Your task to perform on an android device: open app "eBay: The shopping marketplace" (install if not already installed) and go to login screen Image 0: 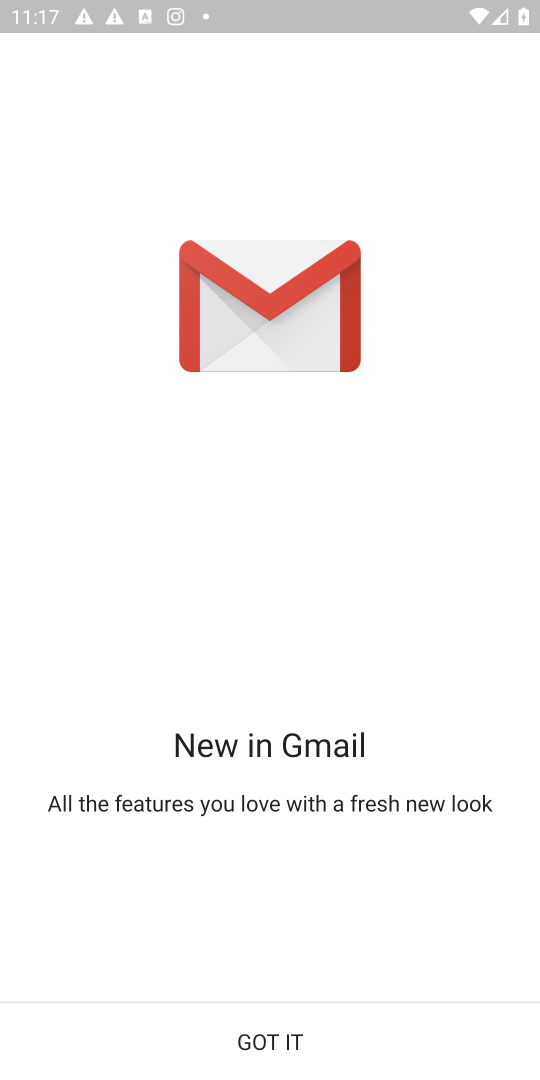
Step 0: press home button
Your task to perform on an android device: open app "eBay: The shopping marketplace" (install if not already installed) and go to login screen Image 1: 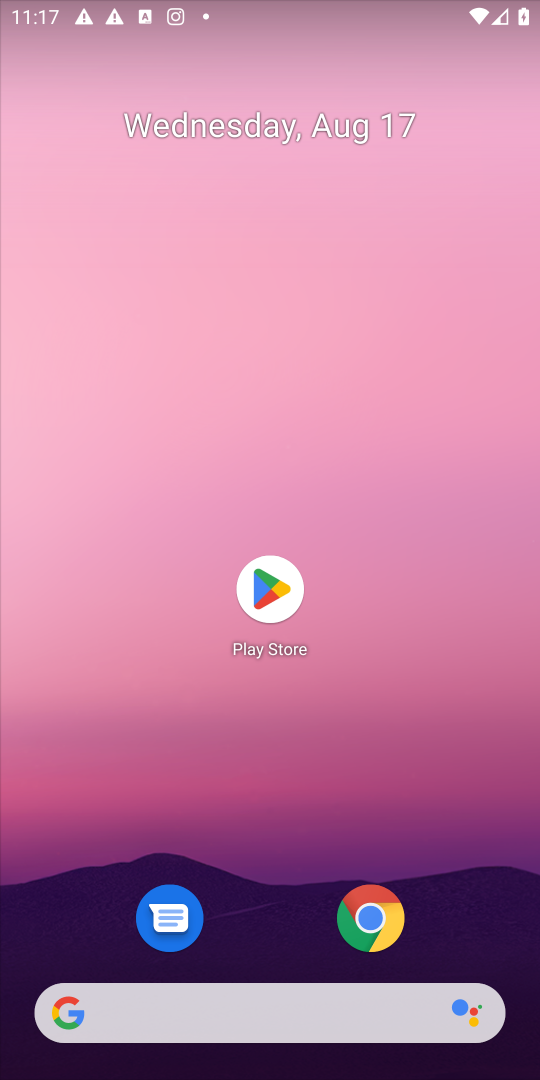
Step 1: click (265, 584)
Your task to perform on an android device: open app "eBay: The shopping marketplace" (install if not already installed) and go to login screen Image 2: 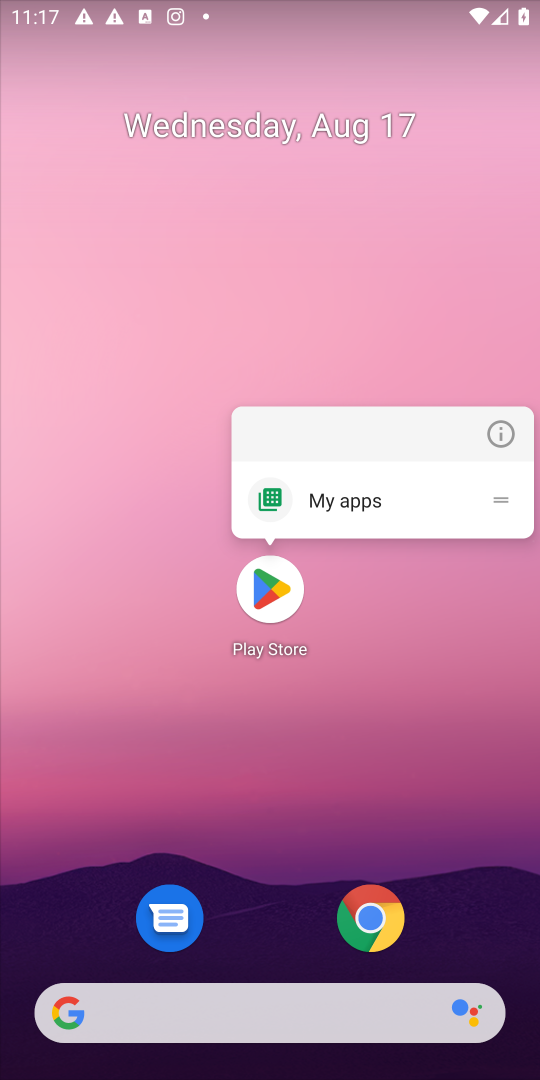
Step 2: click (270, 606)
Your task to perform on an android device: open app "eBay: The shopping marketplace" (install if not already installed) and go to login screen Image 3: 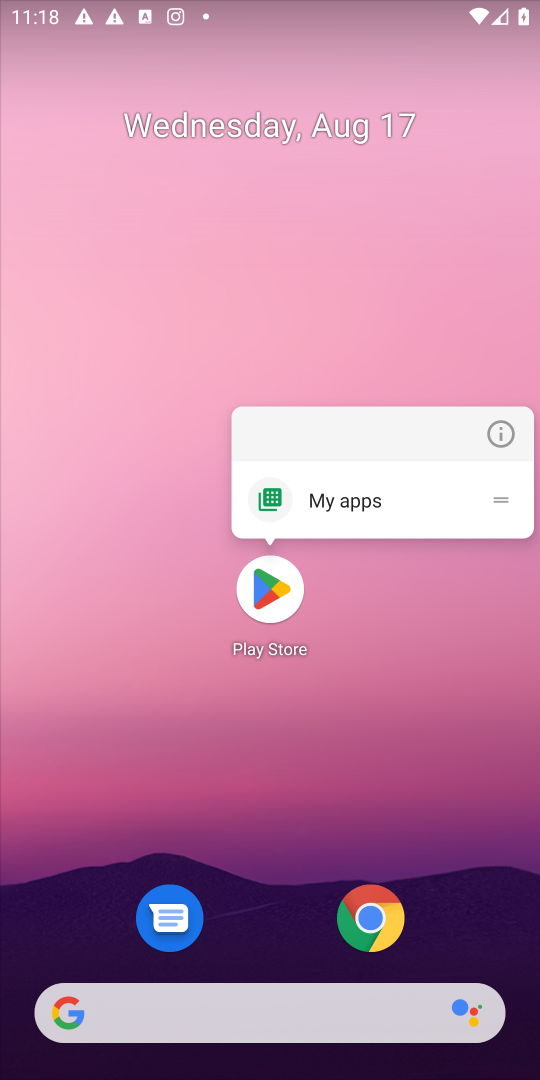
Step 3: click (275, 591)
Your task to perform on an android device: open app "eBay: The shopping marketplace" (install if not already installed) and go to login screen Image 4: 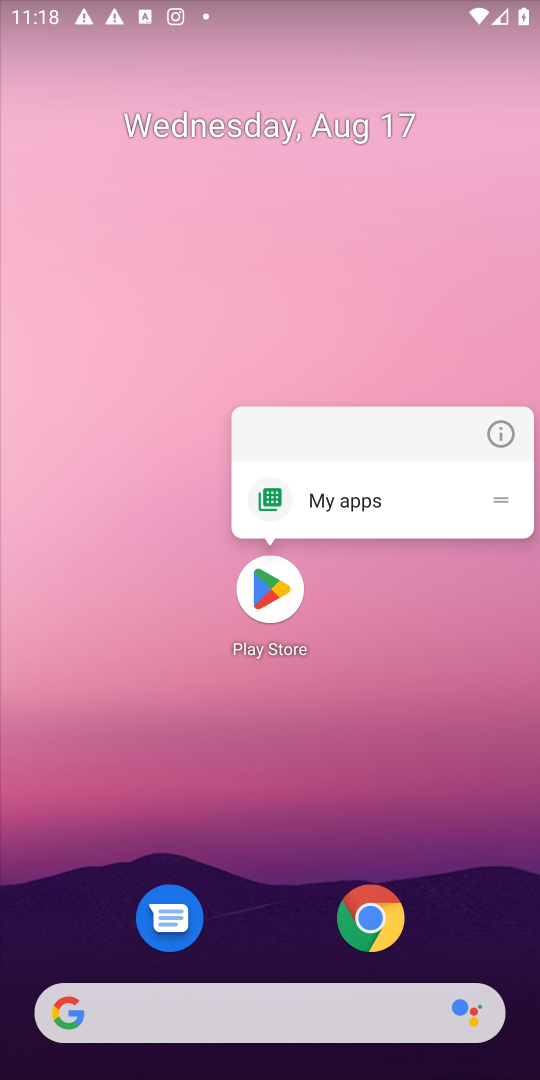
Step 4: click (275, 591)
Your task to perform on an android device: open app "eBay: The shopping marketplace" (install if not already installed) and go to login screen Image 5: 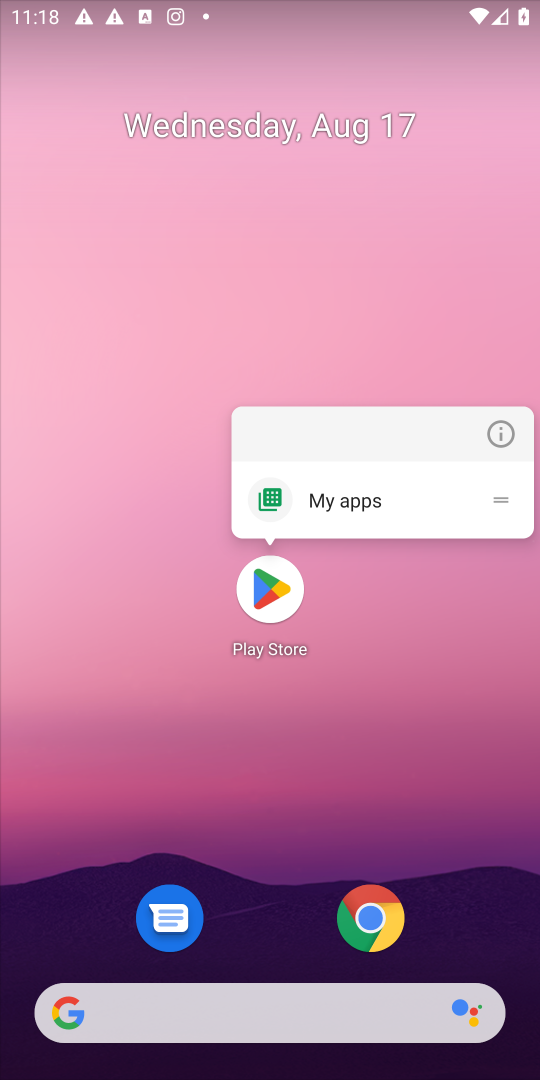
Step 5: click (275, 586)
Your task to perform on an android device: open app "eBay: The shopping marketplace" (install if not already installed) and go to login screen Image 6: 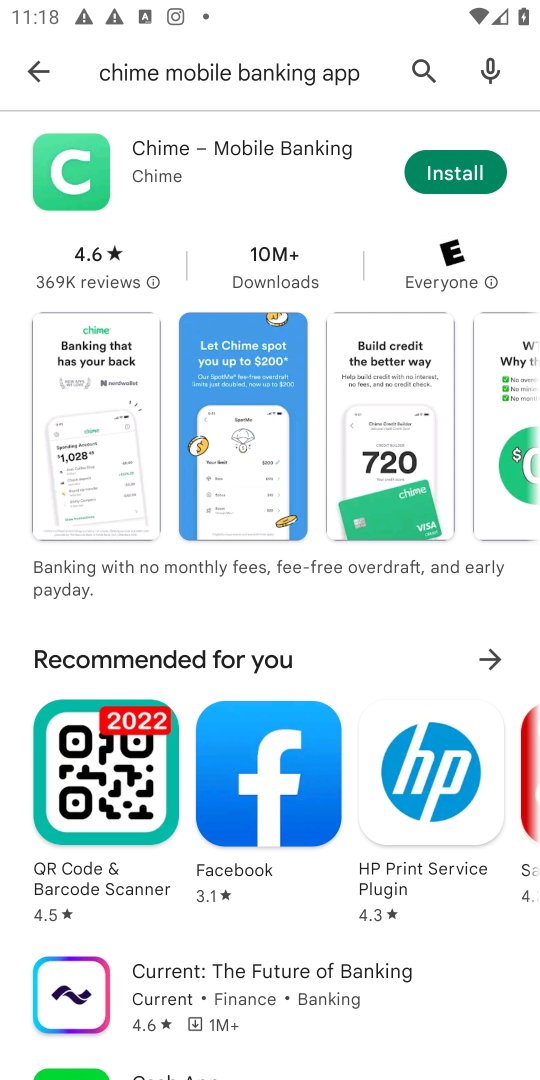
Step 6: click (424, 70)
Your task to perform on an android device: open app "eBay: The shopping marketplace" (install if not already installed) and go to login screen Image 7: 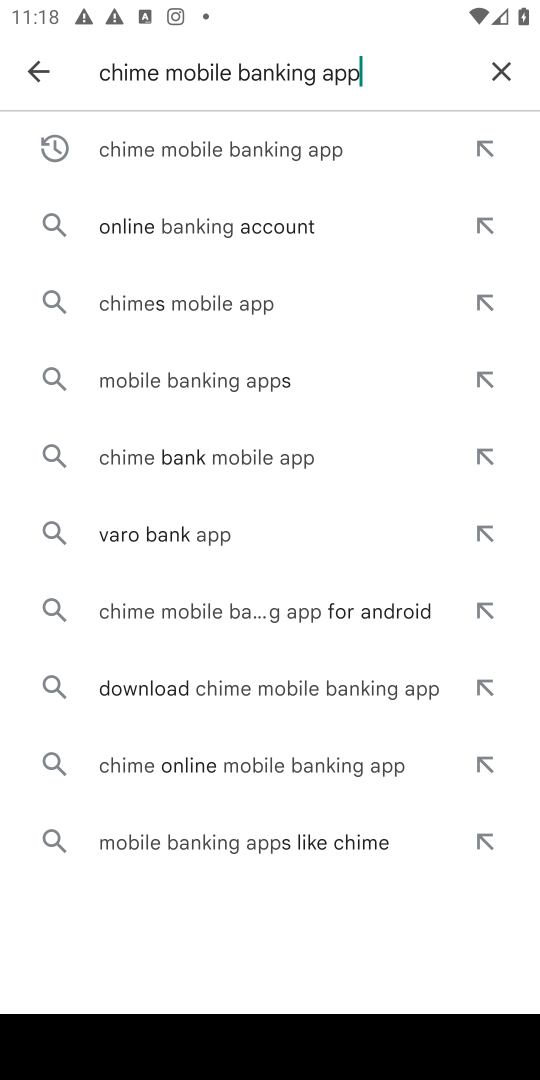
Step 7: click (503, 64)
Your task to perform on an android device: open app "eBay: The shopping marketplace" (install if not already installed) and go to login screen Image 8: 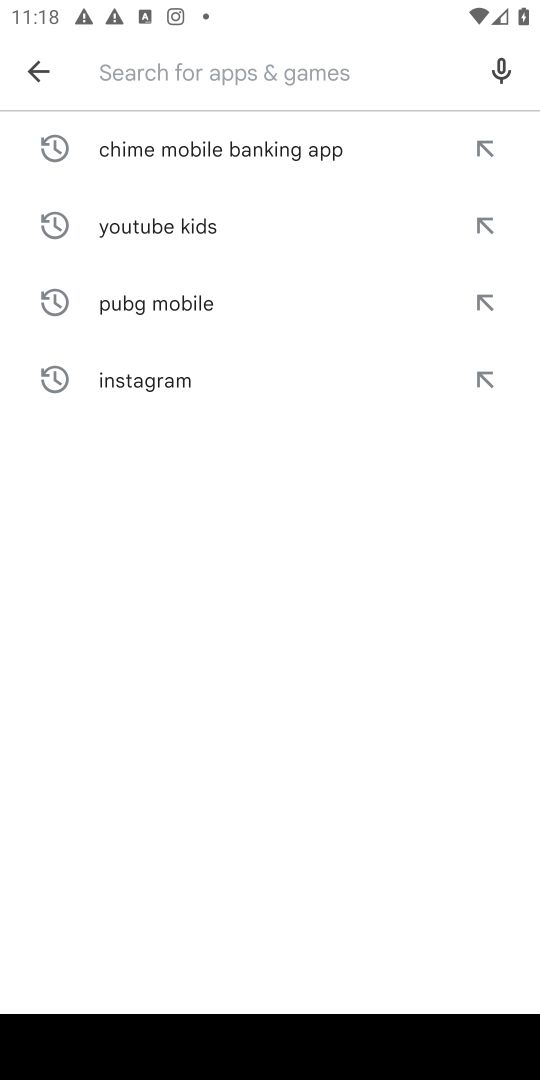
Step 8: type "eBay: The shopping marketplace"
Your task to perform on an android device: open app "eBay: The shopping marketplace" (install if not already installed) and go to login screen Image 9: 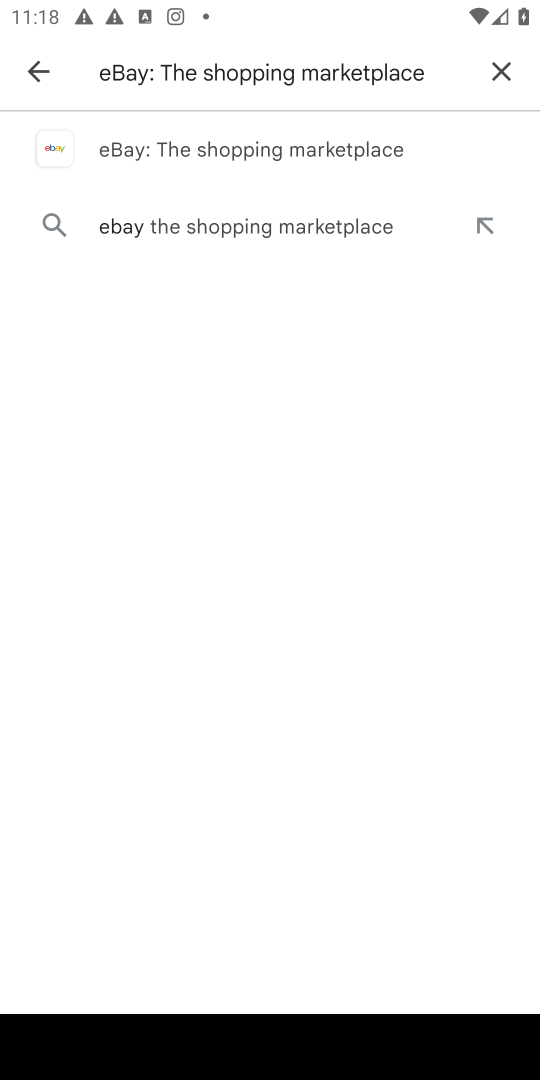
Step 9: click (293, 152)
Your task to perform on an android device: open app "eBay: The shopping marketplace" (install if not already installed) and go to login screen Image 10: 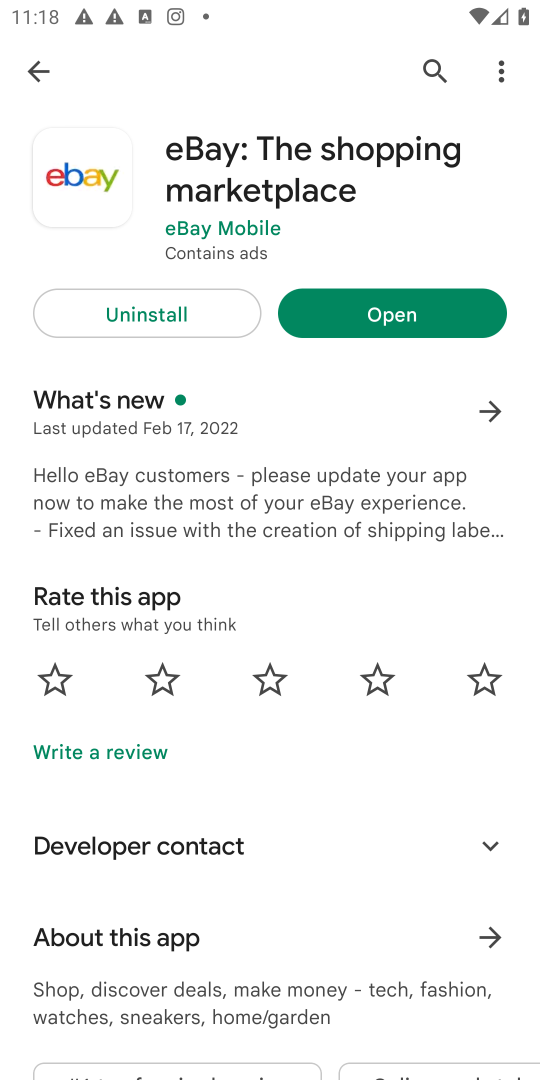
Step 10: click (395, 319)
Your task to perform on an android device: open app "eBay: The shopping marketplace" (install if not already installed) and go to login screen Image 11: 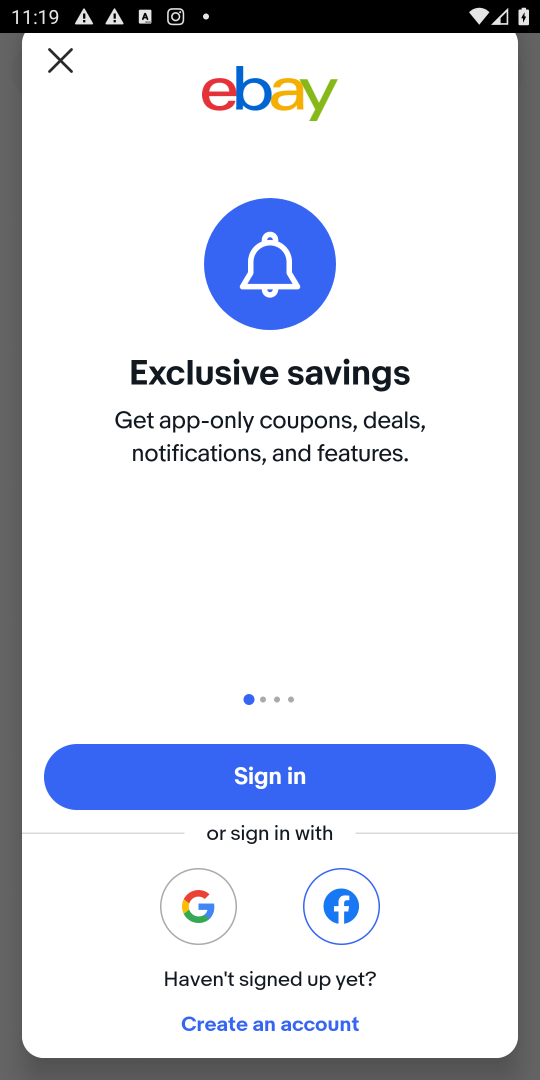
Step 11: task complete